Your task to perform on an android device: turn off data saver in the chrome app Image 0: 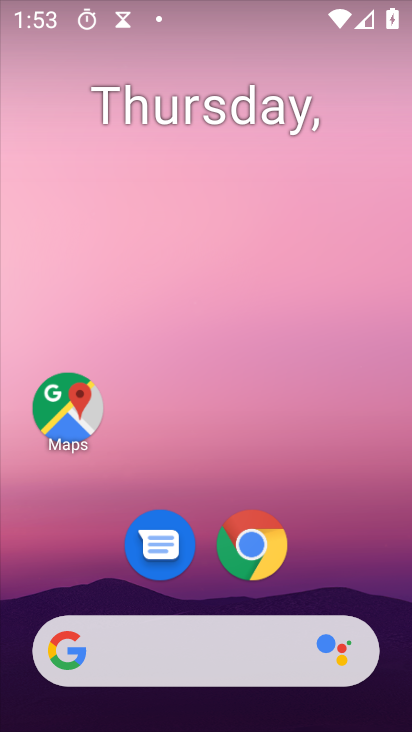
Step 0: click (261, 550)
Your task to perform on an android device: turn off data saver in the chrome app Image 1: 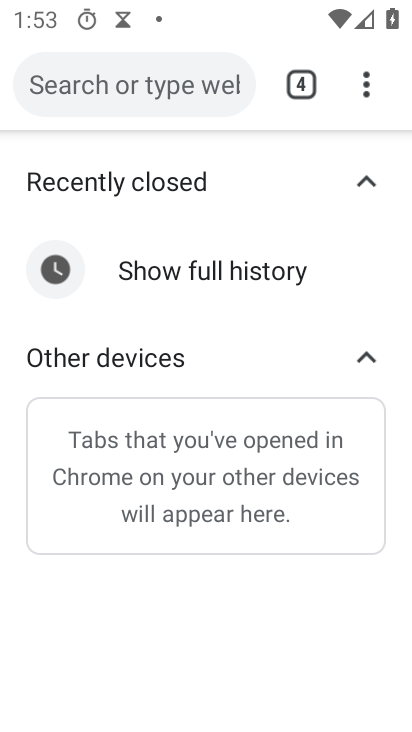
Step 1: click (367, 95)
Your task to perform on an android device: turn off data saver in the chrome app Image 2: 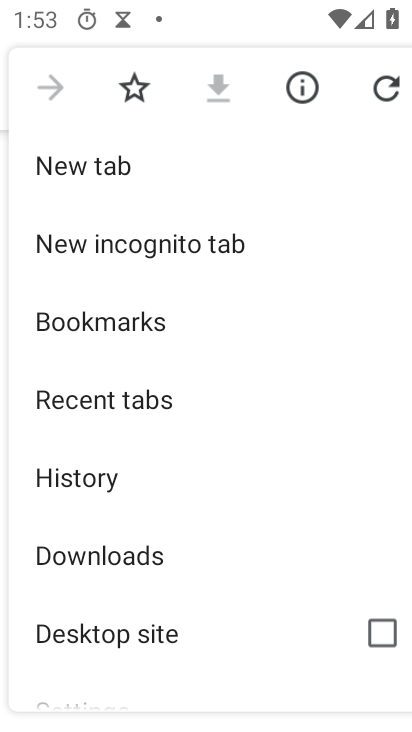
Step 2: drag from (112, 593) to (110, 191)
Your task to perform on an android device: turn off data saver in the chrome app Image 3: 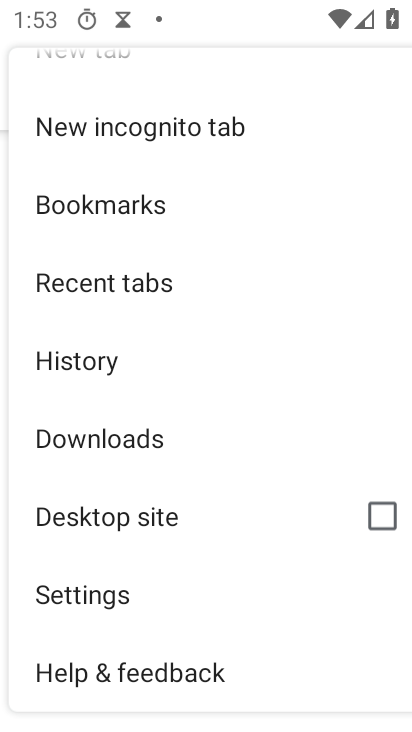
Step 3: click (71, 587)
Your task to perform on an android device: turn off data saver in the chrome app Image 4: 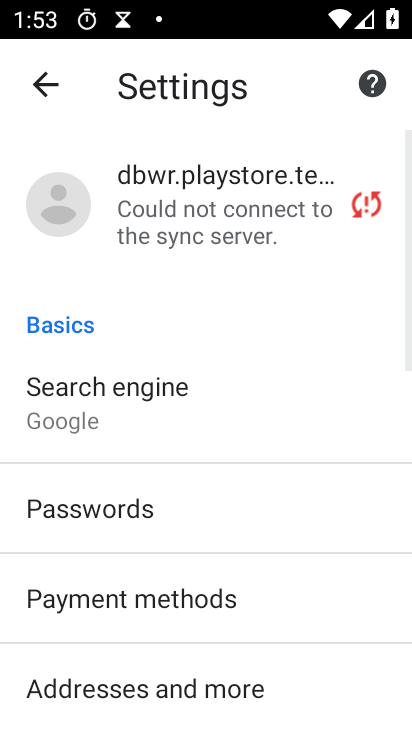
Step 4: drag from (115, 654) to (128, 222)
Your task to perform on an android device: turn off data saver in the chrome app Image 5: 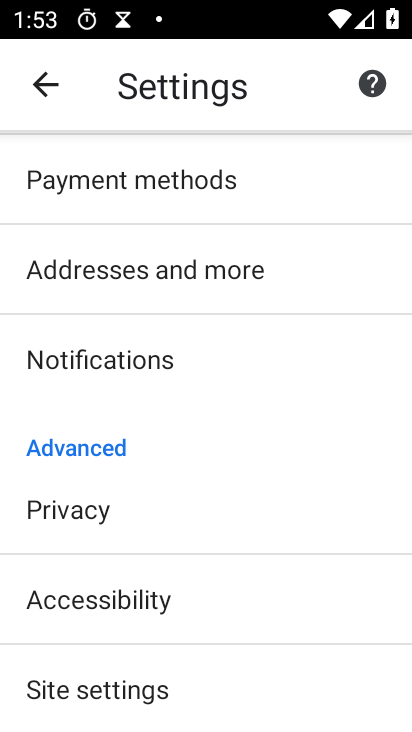
Step 5: drag from (101, 643) to (116, 237)
Your task to perform on an android device: turn off data saver in the chrome app Image 6: 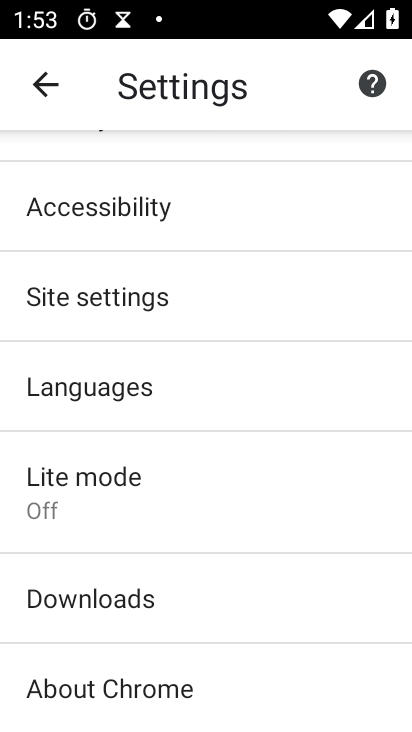
Step 6: click (78, 480)
Your task to perform on an android device: turn off data saver in the chrome app Image 7: 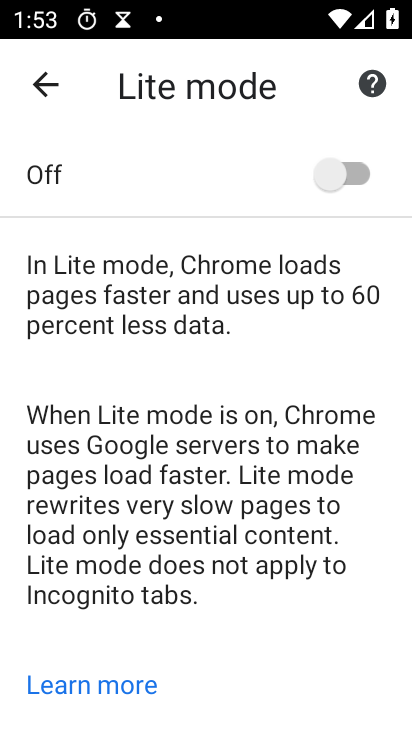
Step 7: task complete